Your task to perform on an android device: Open location settings Image 0: 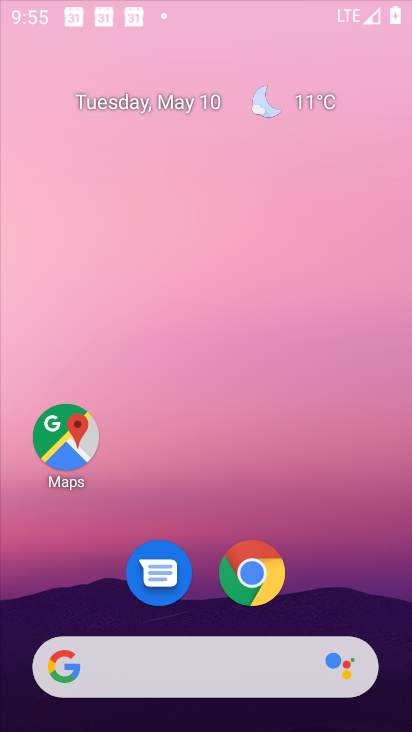
Step 0: click (62, 450)
Your task to perform on an android device: Open location settings Image 1: 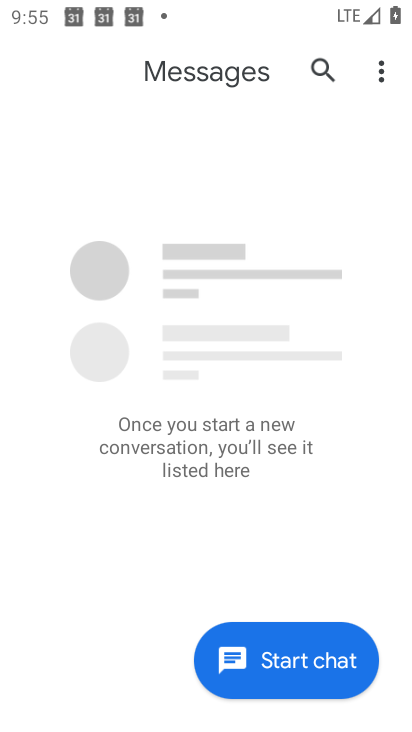
Step 1: press home button
Your task to perform on an android device: Open location settings Image 2: 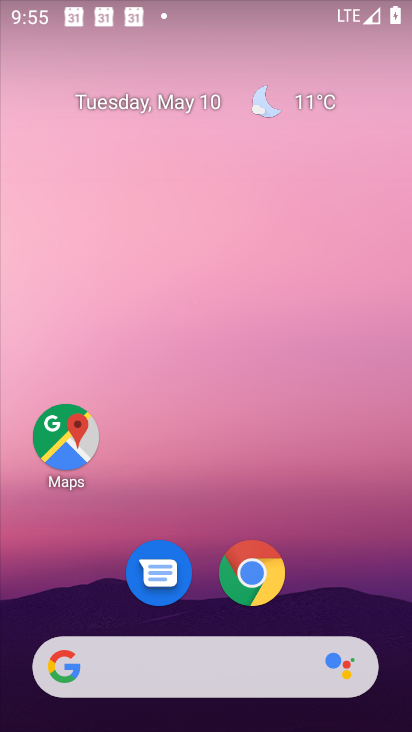
Step 2: drag from (324, 583) to (320, 227)
Your task to perform on an android device: Open location settings Image 3: 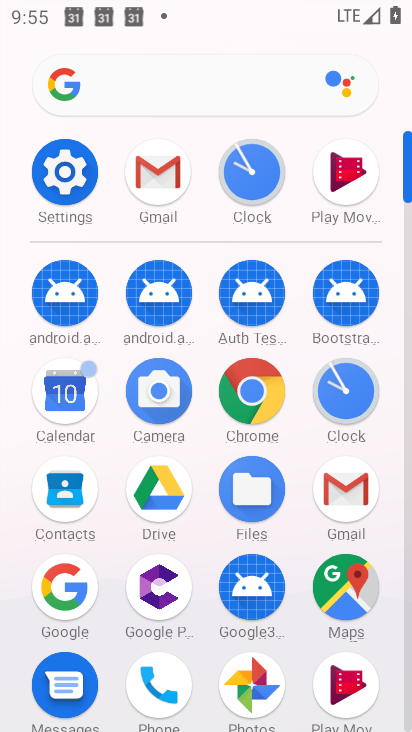
Step 3: click (63, 180)
Your task to perform on an android device: Open location settings Image 4: 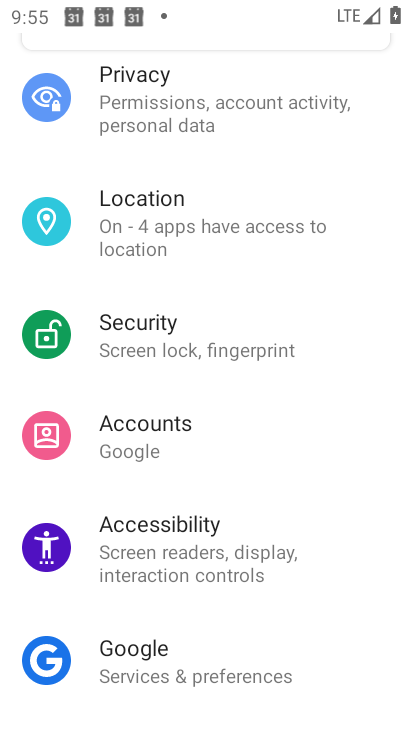
Step 4: click (218, 231)
Your task to perform on an android device: Open location settings Image 5: 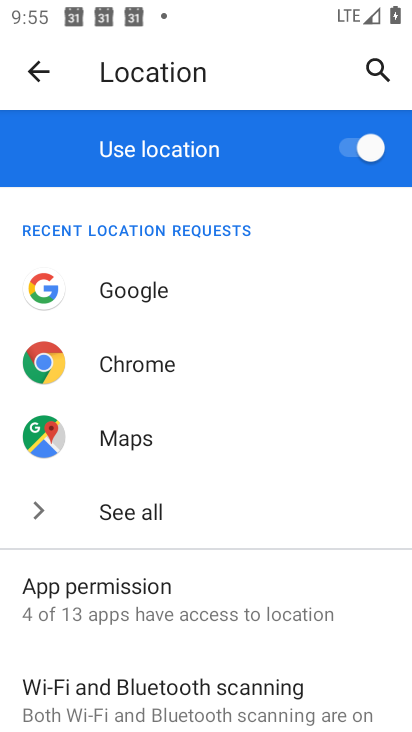
Step 5: task complete